Your task to perform on an android device: Search for macbook on target, select the first entry, and add it to the cart. Image 0: 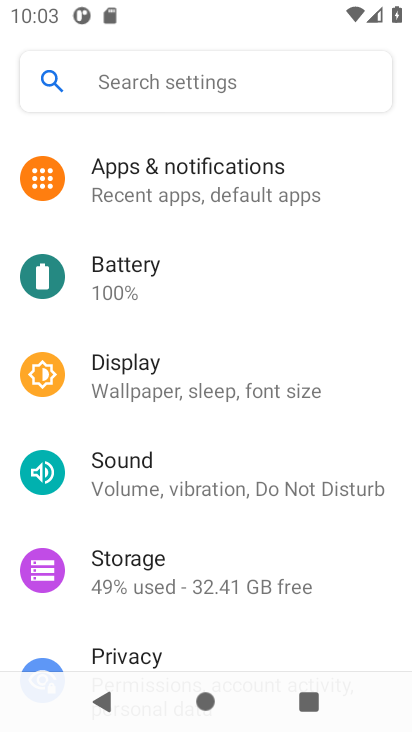
Step 0: press home button
Your task to perform on an android device: Search for macbook on target, select the first entry, and add it to the cart. Image 1: 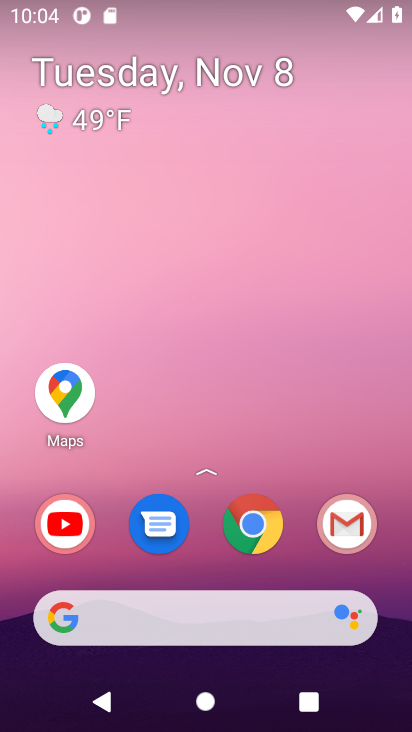
Step 1: click (268, 530)
Your task to perform on an android device: Search for macbook on target, select the first entry, and add it to the cart. Image 2: 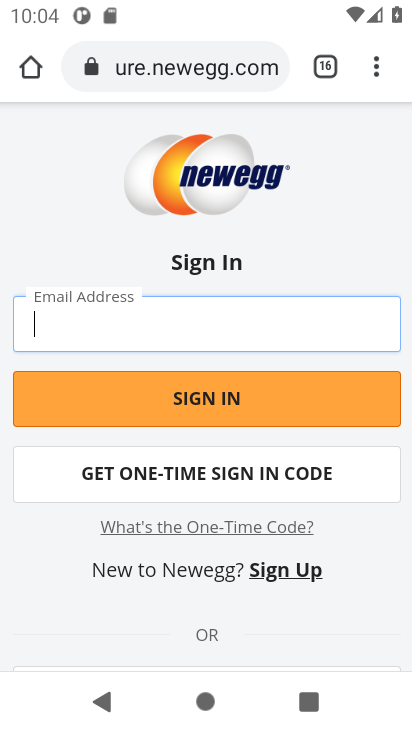
Step 2: click (178, 63)
Your task to perform on an android device: Search for macbook on target, select the first entry, and add it to the cart. Image 3: 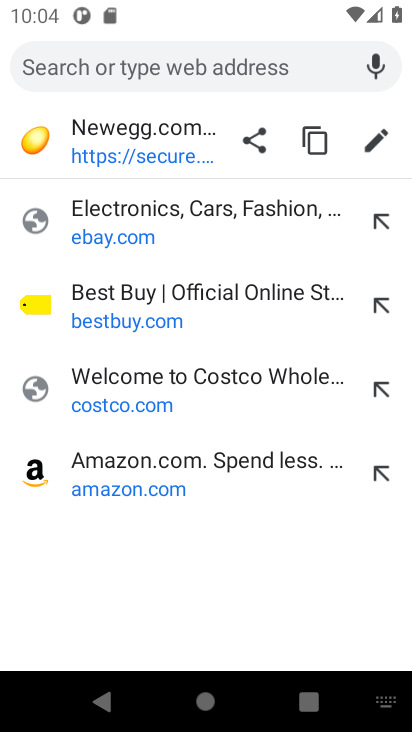
Step 3: type "target.com"
Your task to perform on an android device: Search for macbook on target, select the first entry, and add it to the cart. Image 4: 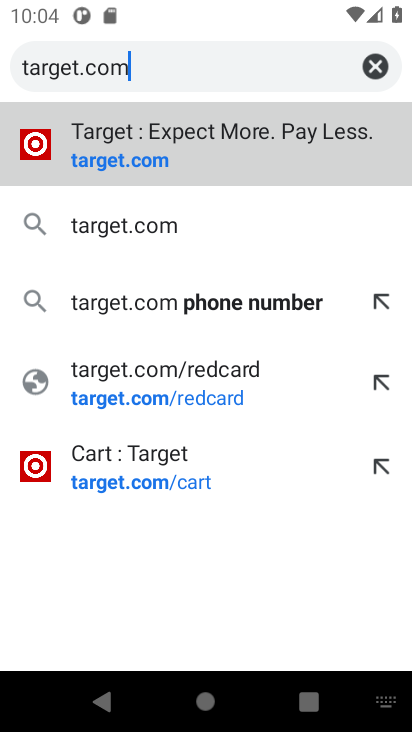
Step 4: click (104, 173)
Your task to perform on an android device: Search for macbook on target, select the first entry, and add it to the cart. Image 5: 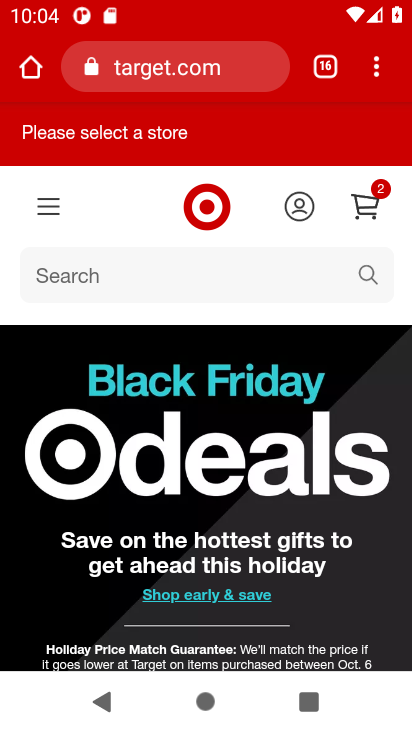
Step 5: click (370, 280)
Your task to perform on an android device: Search for macbook on target, select the first entry, and add it to the cart. Image 6: 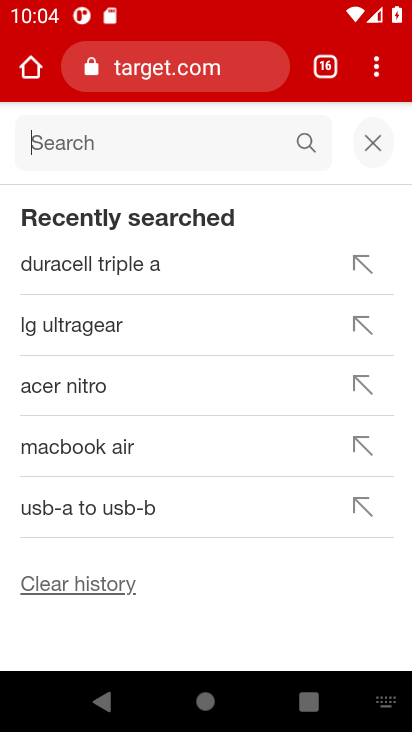
Step 6: type "macbook"
Your task to perform on an android device: Search for macbook on target, select the first entry, and add it to the cart. Image 7: 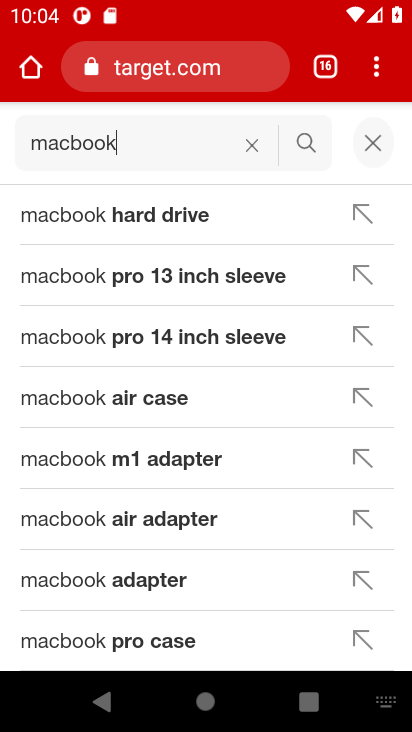
Step 7: click (299, 139)
Your task to perform on an android device: Search for macbook on target, select the first entry, and add it to the cart. Image 8: 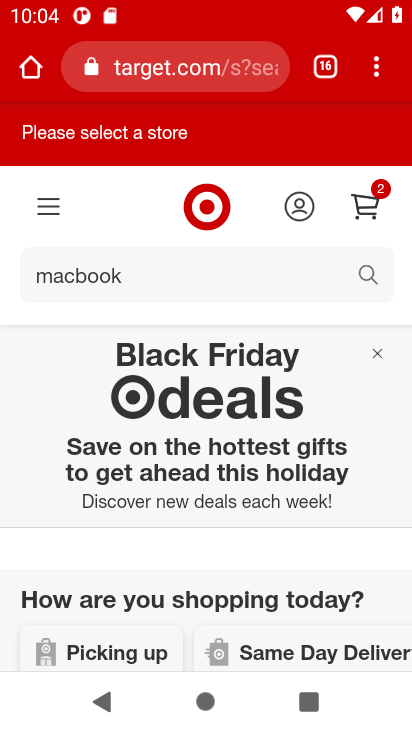
Step 8: drag from (135, 392) to (154, 169)
Your task to perform on an android device: Search for macbook on target, select the first entry, and add it to the cart. Image 9: 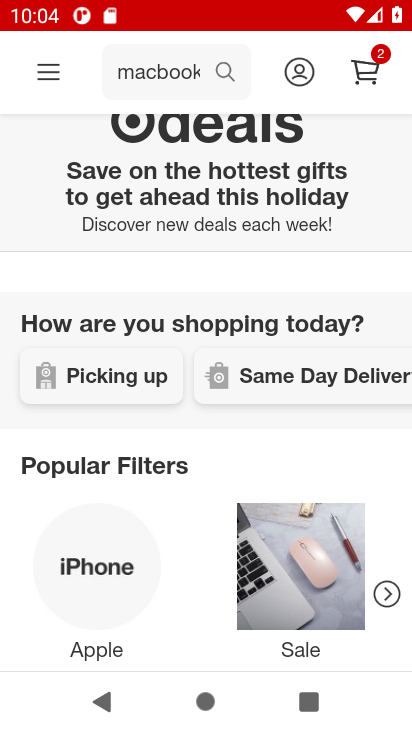
Step 9: drag from (145, 413) to (139, 151)
Your task to perform on an android device: Search for macbook on target, select the first entry, and add it to the cart. Image 10: 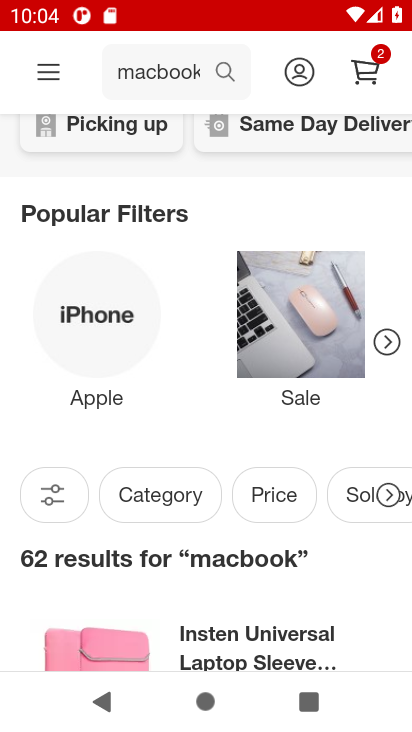
Step 10: drag from (95, 466) to (94, 199)
Your task to perform on an android device: Search for macbook on target, select the first entry, and add it to the cart. Image 11: 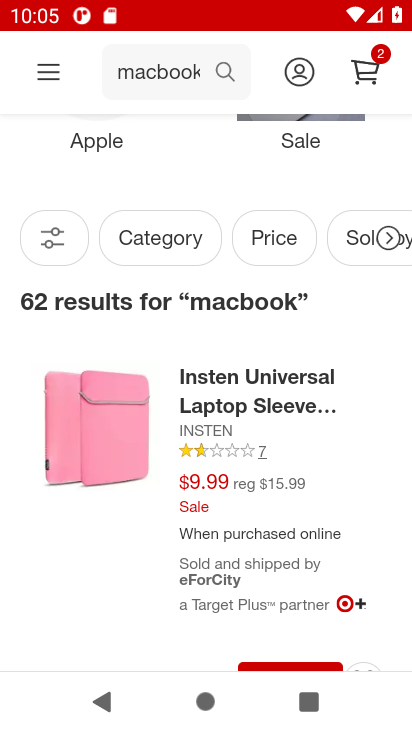
Step 11: drag from (136, 559) to (138, 453)
Your task to perform on an android device: Search for macbook on target, select the first entry, and add it to the cart. Image 12: 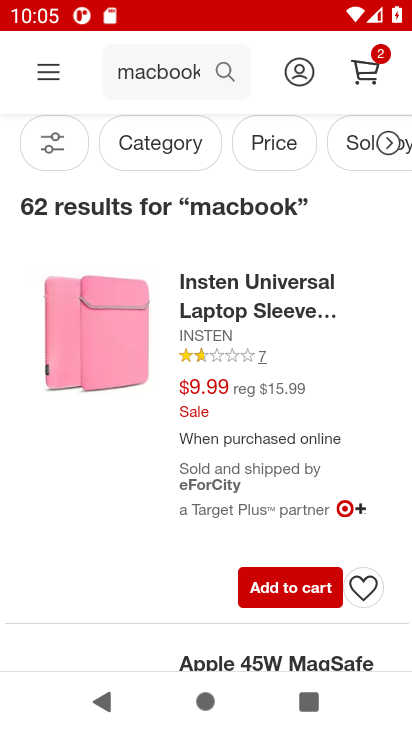
Step 12: click (117, 415)
Your task to perform on an android device: Search for macbook on target, select the first entry, and add it to the cart. Image 13: 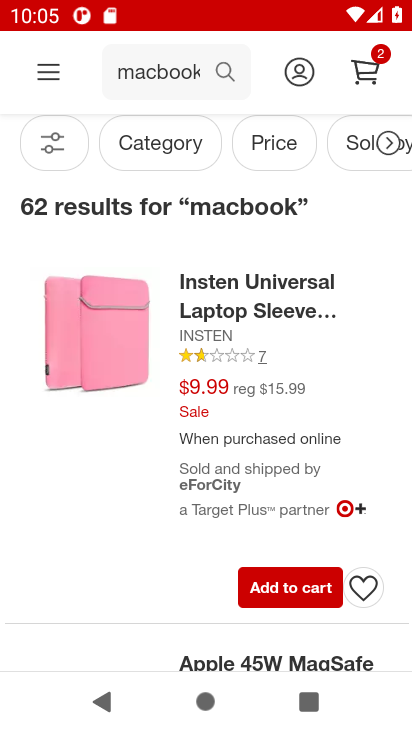
Step 13: click (97, 373)
Your task to perform on an android device: Search for macbook on target, select the first entry, and add it to the cart. Image 14: 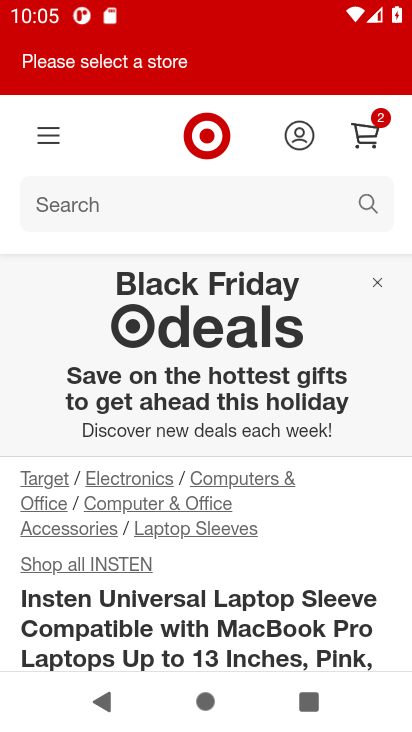
Step 14: drag from (181, 543) to (186, 299)
Your task to perform on an android device: Search for macbook on target, select the first entry, and add it to the cart. Image 15: 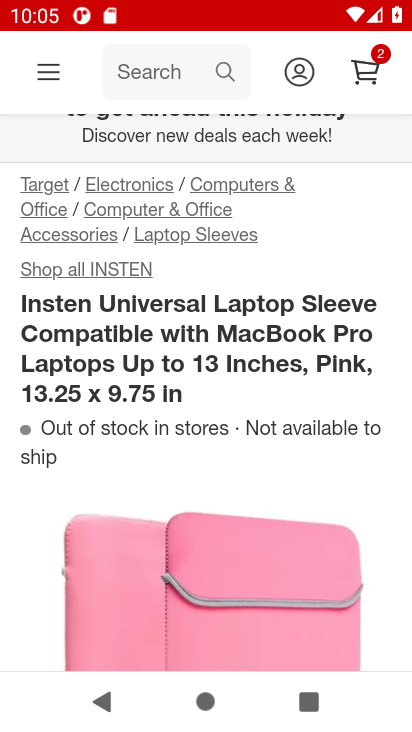
Step 15: drag from (184, 478) to (190, 250)
Your task to perform on an android device: Search for macbook on target, select the first entry, and add it to the cart. Image 16: 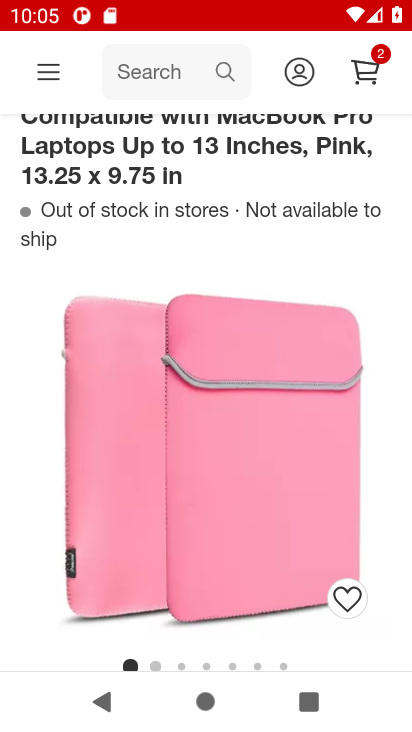
Step 16: drag from (170, 463) to (167, 249)
Your task to perform on an android device: Search for macbook on target, select the first entry, and add it to the cart. Image 17: 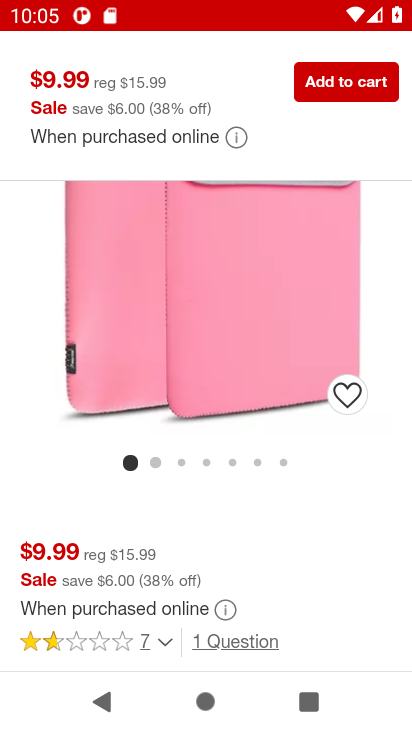
Step 17: drag from (166, 504) to (162, 220)
Your task to perform on an android device: Search for macbook on target, select the first entry, and add it to the cart. Image 18: 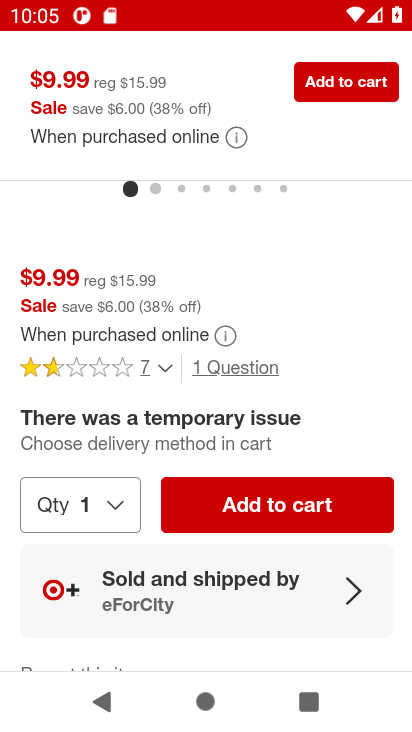
Step 18: click (258, 499)
Your task to perform on an android device: Search for macbook on target, select the first entry, and add it to the cart. Image 19: 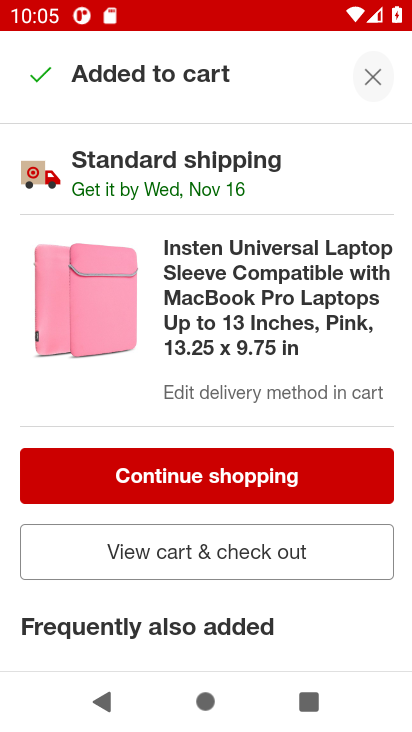
Step 19: task complete